Your task to perform on an android device: toggle priority inbox in the gmail app Image 0: 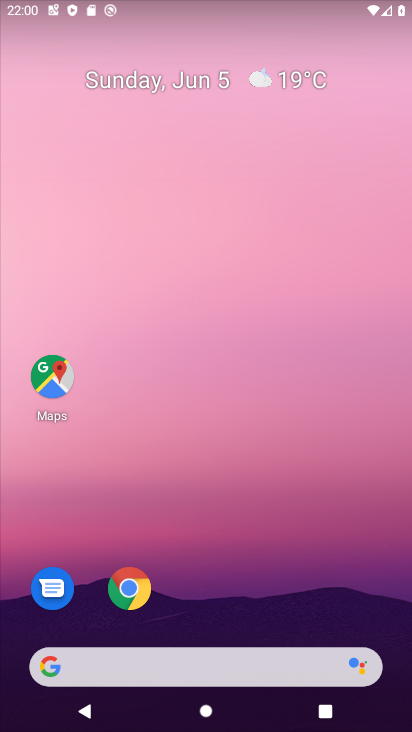
Step 0: drag from (362, 611) to (360, 197)
Your task to perform on an android device: toggle priority inbox in the gmail app Image 1: 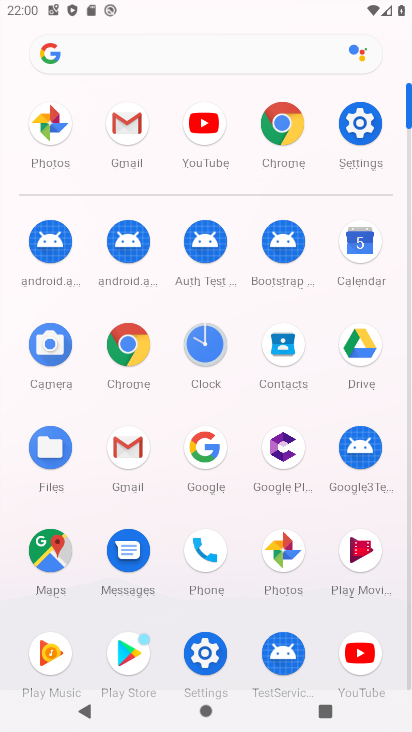
Step 1: click (130, 452)
Your task to perform on an android device: toggle priority inbox in the gmail app Image 2: 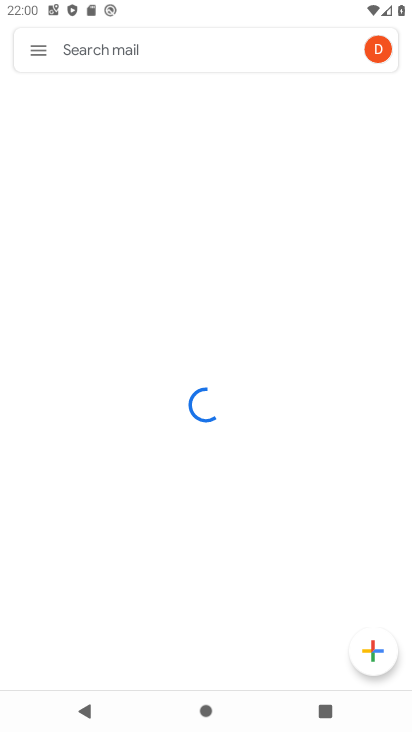
Step 2: click (36, 46)
Your task to perform on an android device: toggle priority inbox in the gmail app Image 3: 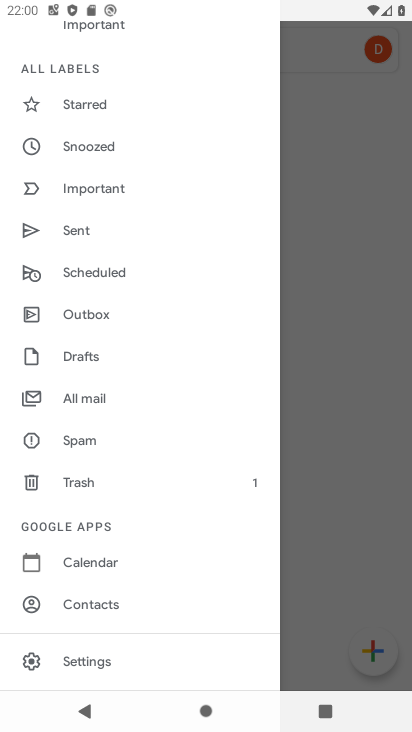
Step 3: drag from (200, 217) to (212, 385)
Your task to perform on an android device: toggle priority inbox in the gmail app Image 4: 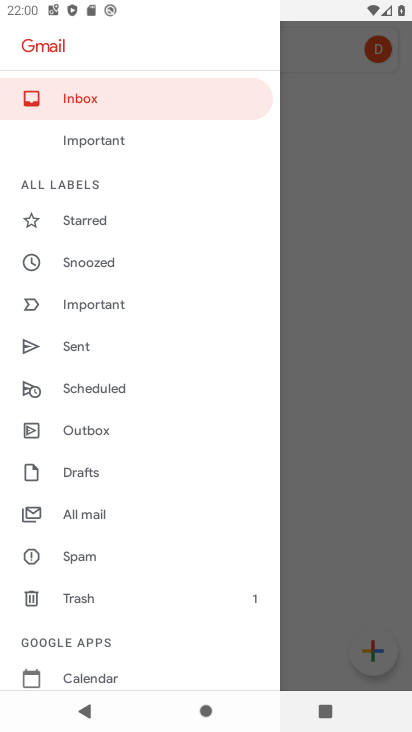
Step 4: drag from (212, 178) to (204, 352)
Your task to perform on an android device: toggle priority inbox in the gmail app Image 5: 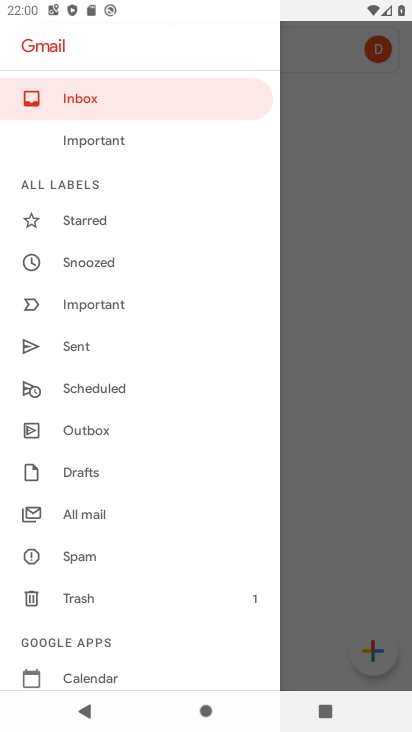
Step 5: drag from (193, 469) to (202, 309)
Your task to perform on an android device: toggle priority inbox in the gmail app Image 6: 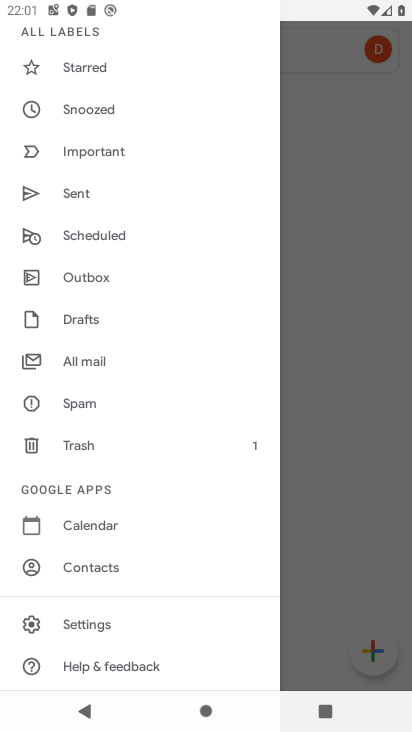
Step 6: click (107, 625)
Your task to perform on an android device: toggle priority inbox in the gmail app Image 7: 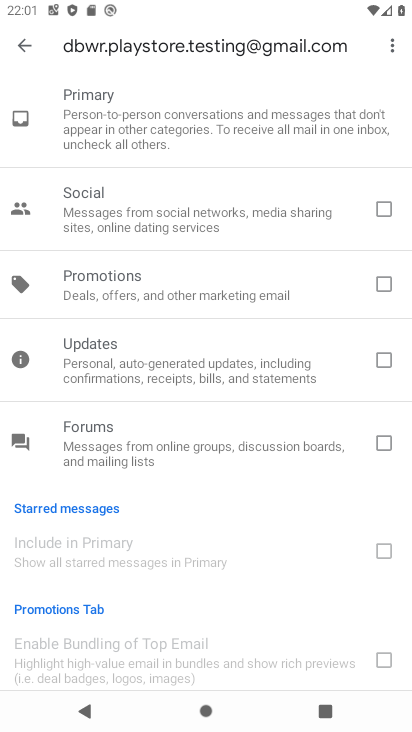
Step 7: click (20, 48)
Your task to perform on an android device: toggle priority inbox in the gmail app Image 8: 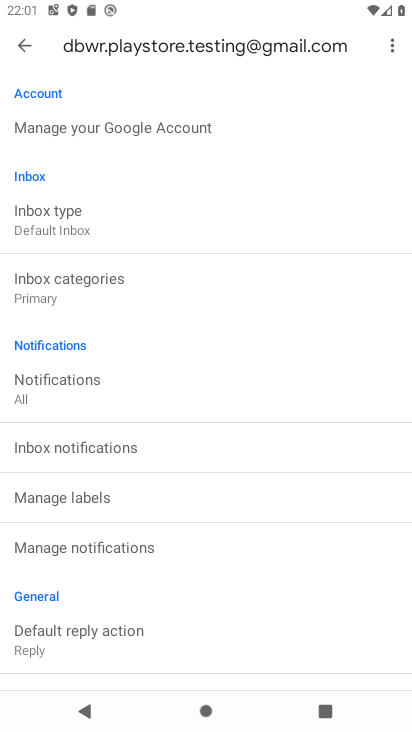
Step 8: drag from (284, 472) to (289, 351)
Your task to perform on an android device: toggle priority inbox in the gmail app Image 9: 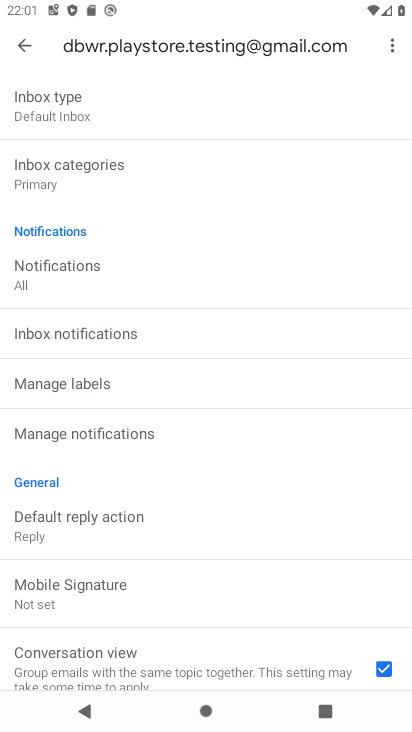
Step 9: drag from (279, 494) to (285, 384)
Your task to perform on an android device: toggle priority inbox in the gmail app Image 10: 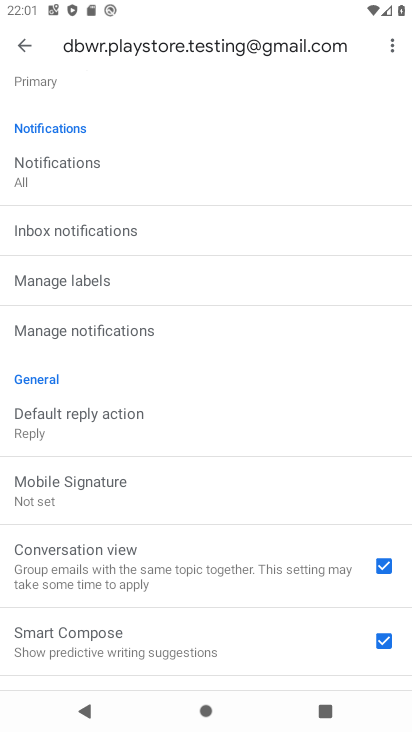
Step 10: drag from (263, 585) to (276, 527)
Your task to perform on an android device: toggle priority inbox in the gmail app Image 11: 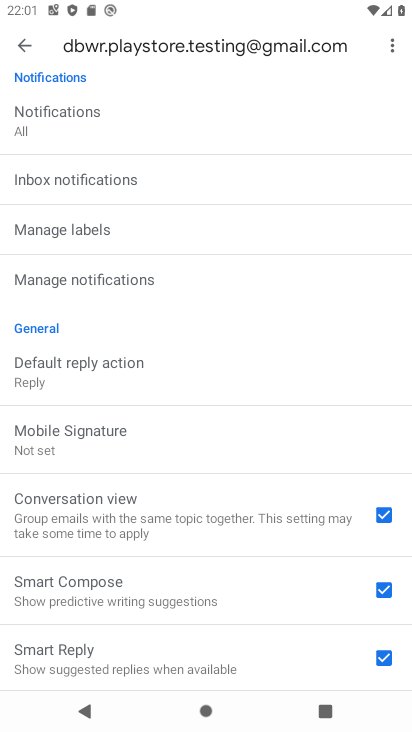
Step 11: drag from (275, 556) to (273, 380)
Your task to perform on an android device: toggle priority inbox in the gmail app Image 12: 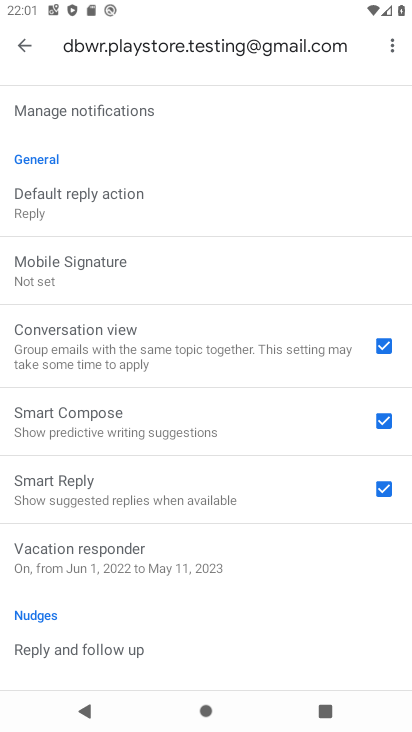
Step 12: drag from (288, 549) to (283, 337)
Your task to perform on an android device: toggle priority inbox in the gmail app Image 13: 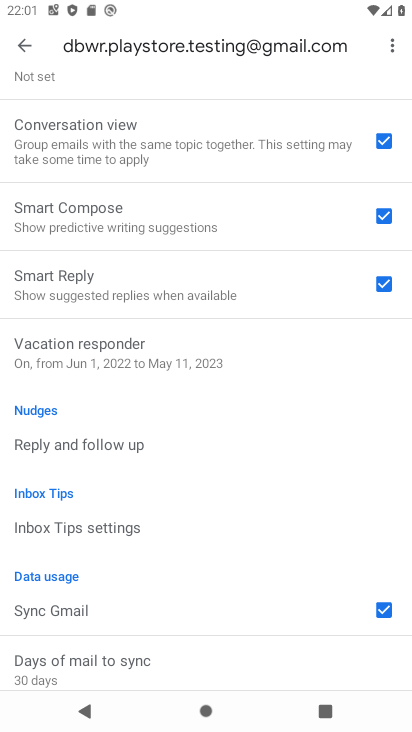
Step 13: drag from (307, 202) to (322, 348)
Your task to perform on an android device: toggle priority inbox in the gmail app Image 14: 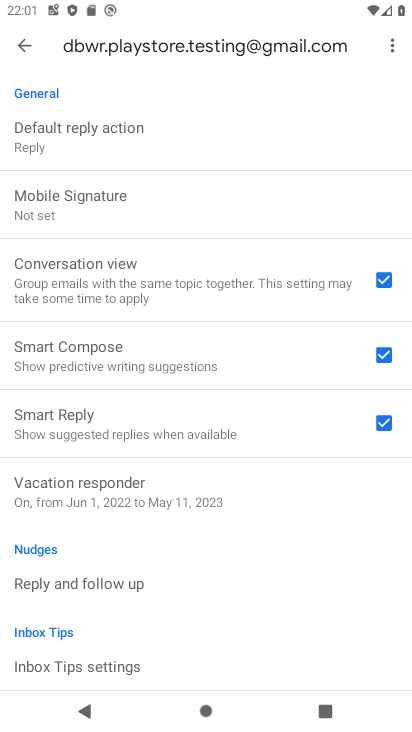
Step 14: drag from (291, 200) to (284, 317)
Your task to perform on an android device: toggle priority inbox in the gmail app Image 15: 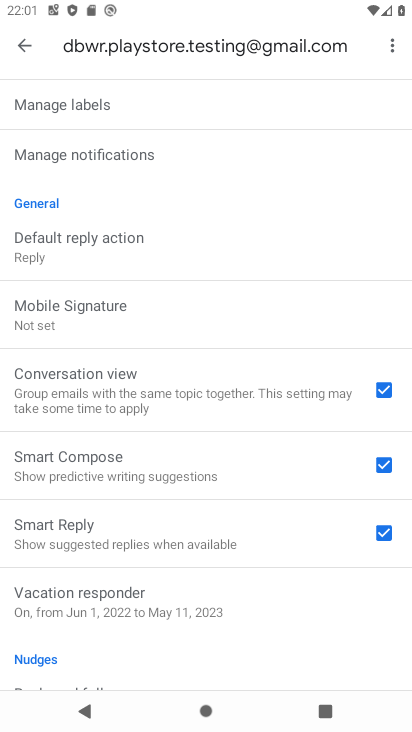
Step 15: drag from (271, 188) to (278, 322)
Your task to perform on an android device: toggle priority inbox in the gmail app Image 16: 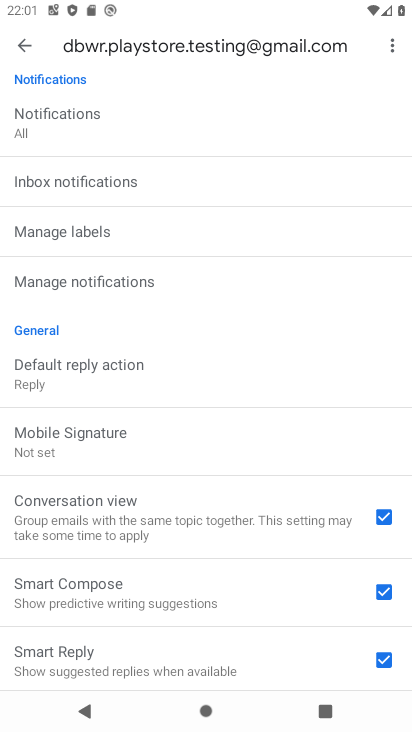
Step 16: drag from (264, 141) to (277, 344)
Your task to perform on an android device: toggle priority inbox in the gmail app Image 17: 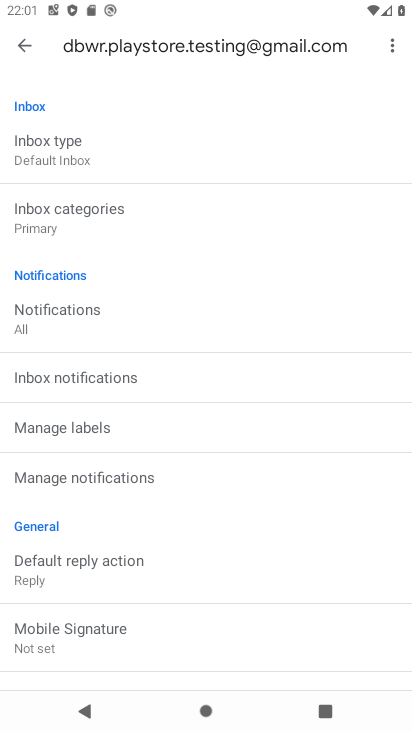
Step 17: drag from (237, 107) to (254, 291)
Your task to perform on an android device: toggle priority inbox in the gmail app Image 18: 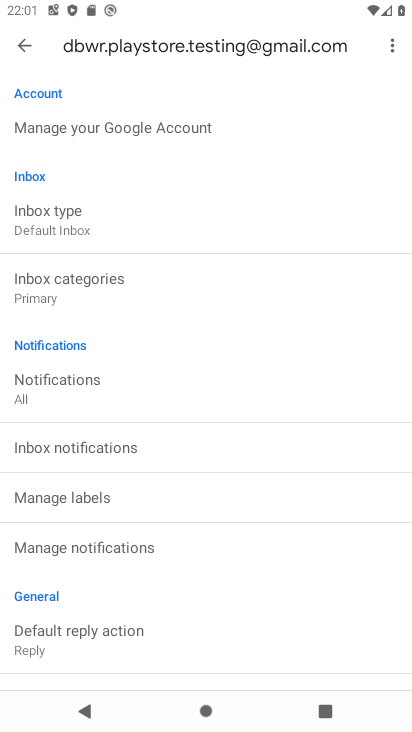
Step 18: click (72, 228)
Your task to perform on an android device: toggle priority inbox in the gmail app Image 19: 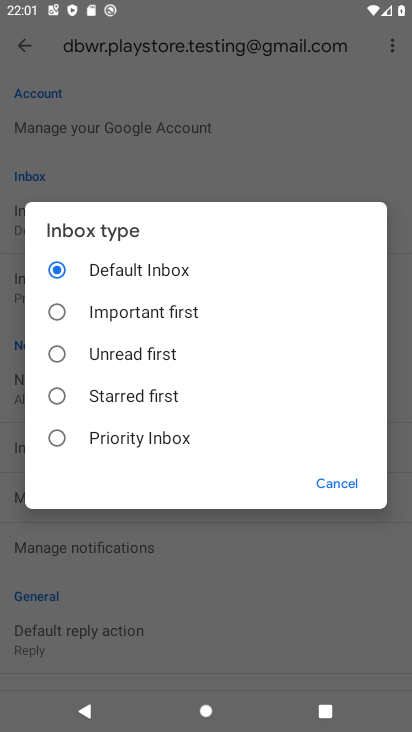
Step 19: click (176, 434)
Your task to perform on an android device: toggle priority inbox in the gmail app Image 20: 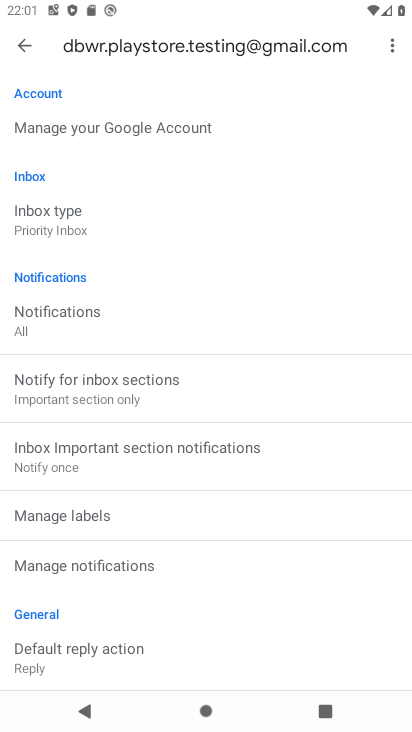
Step 20: task complete